Your task to perform on an android device: Search for Italian restaurants on Maps Image 0: 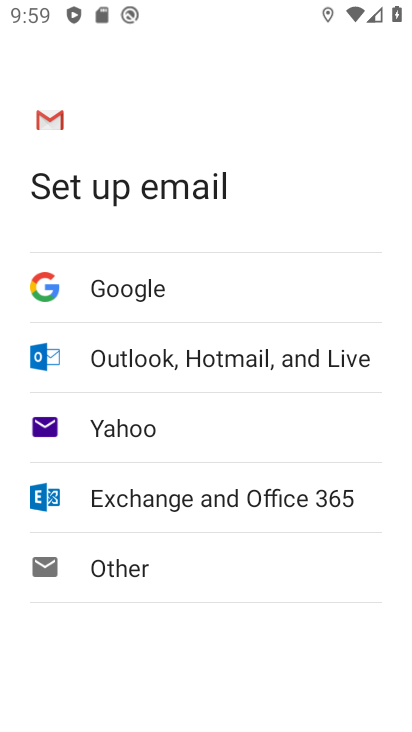
Step 0: press home button
Your task to perform on an android device: Search for Italian restaurants on Maps Image 1: 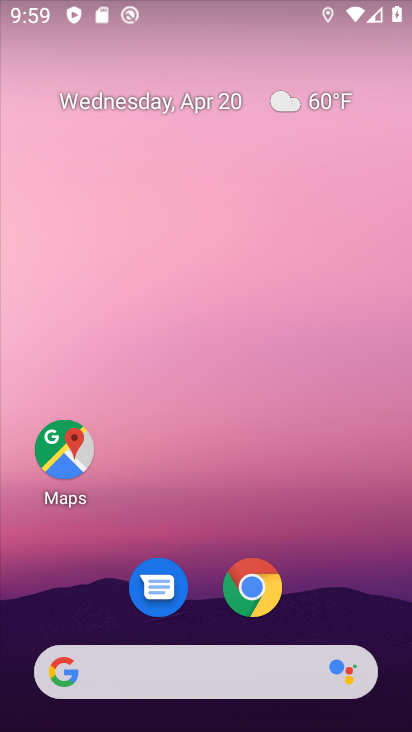
Step 1: click (78, 459)
Your task to perform on an android device: Search for Italian restaurants on Maps Image 2: 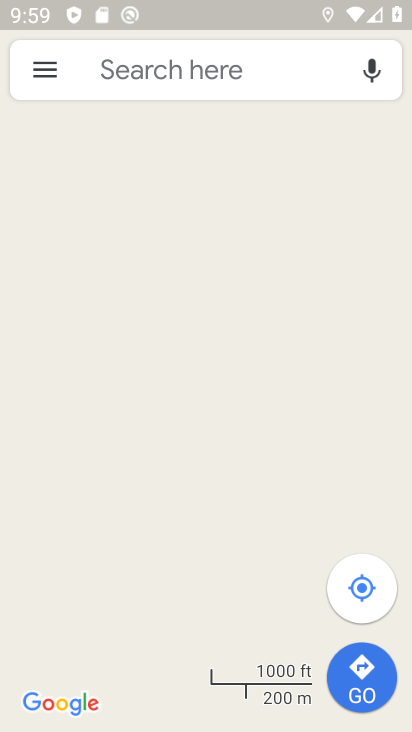
Step 2: click (214, 70)
Your task to perform on an android device: Search for Italian restaurants on Maps Image 3: 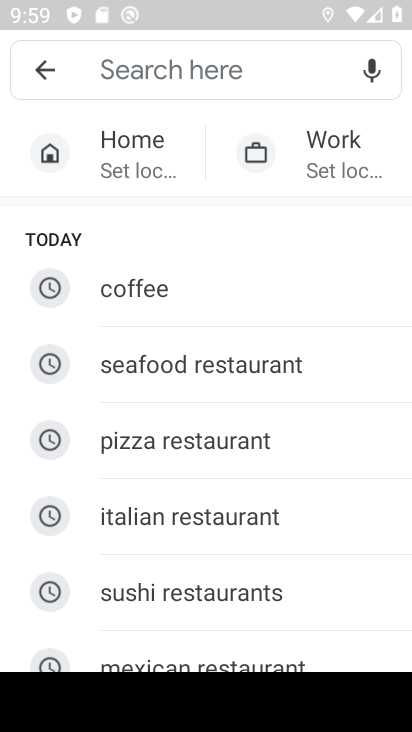
Step 3: type "italian restaurants"
Your task to perform on an android device: Search for Italian restaurants on Maps Image 4: 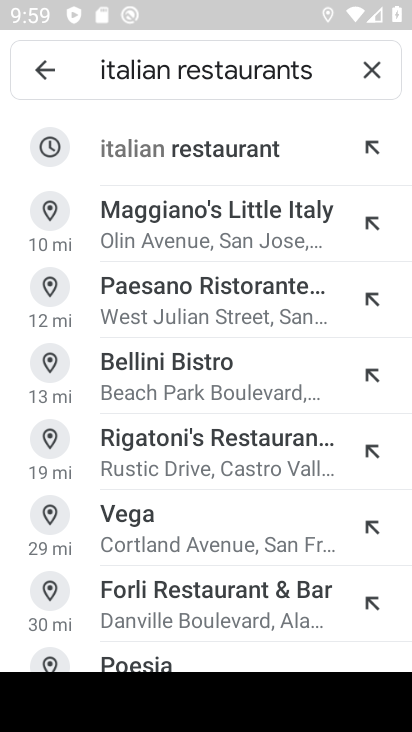
Step 4: click (141, 155)
Your task to perform on an android device: Search for Italian restaurants on Maps Image 5: 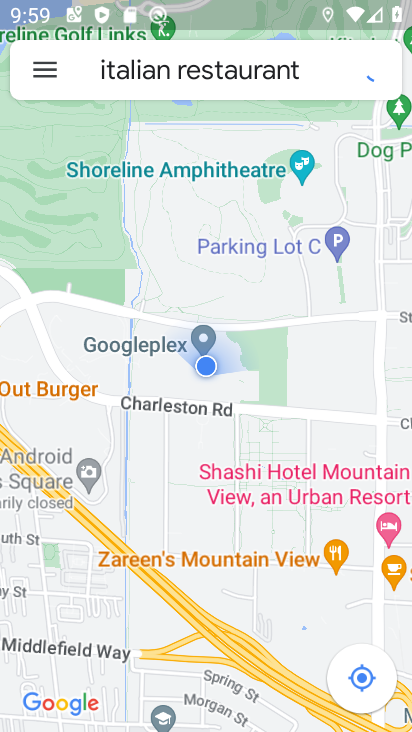
Step 5: click (145, 157)
Your task to perform on an android device: Search for Italian restaurants on Maps Image 6: 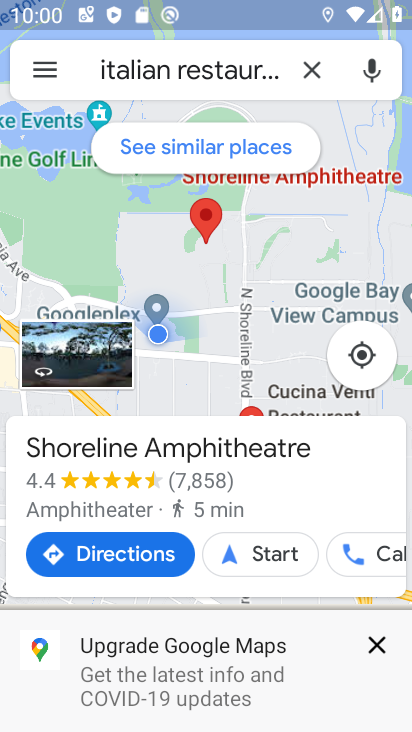
Step 6: task complete